Your task to perform on an android device: Search for "razer blade" on bestbuy.com, select the first entry, and add it to the cart. Image 0: 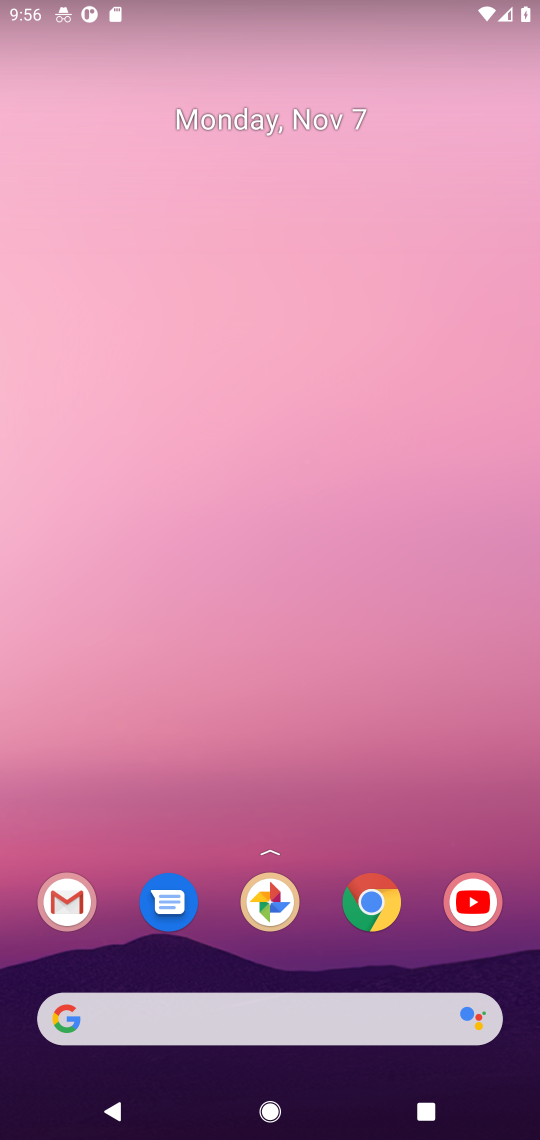
Step 0: click (385, 913)
Your task to perform on an android device: Search for "razer blade" on bestbuy.com, select the first entry, and add it to the cart. Image 1: 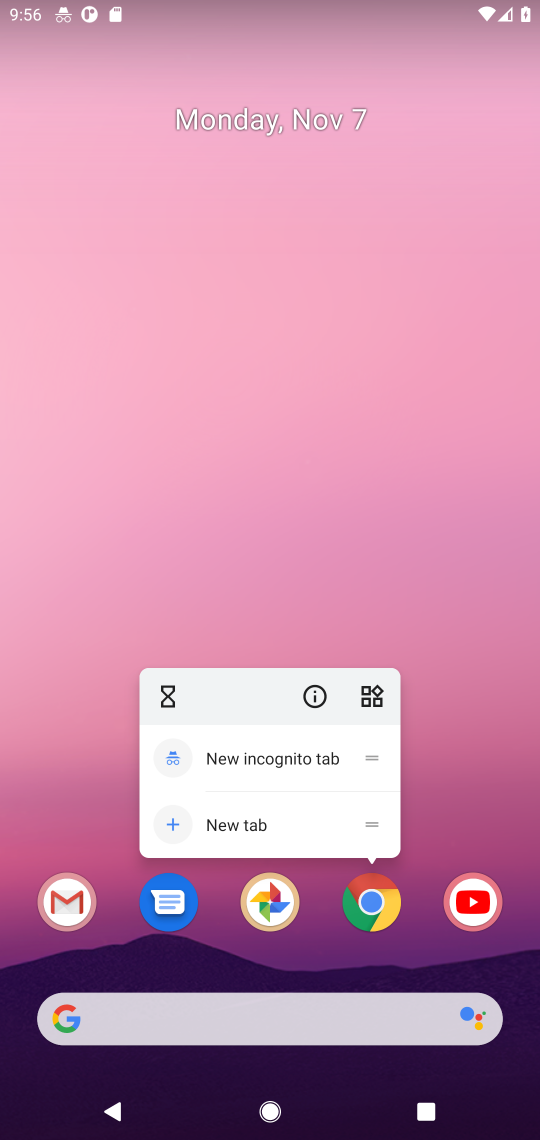
Step 1: click (385, 913)
Your task to perform on an android device: Search for "razer blade" on bestbuy.com, select the first entry, and add it to the cart. Image 2: 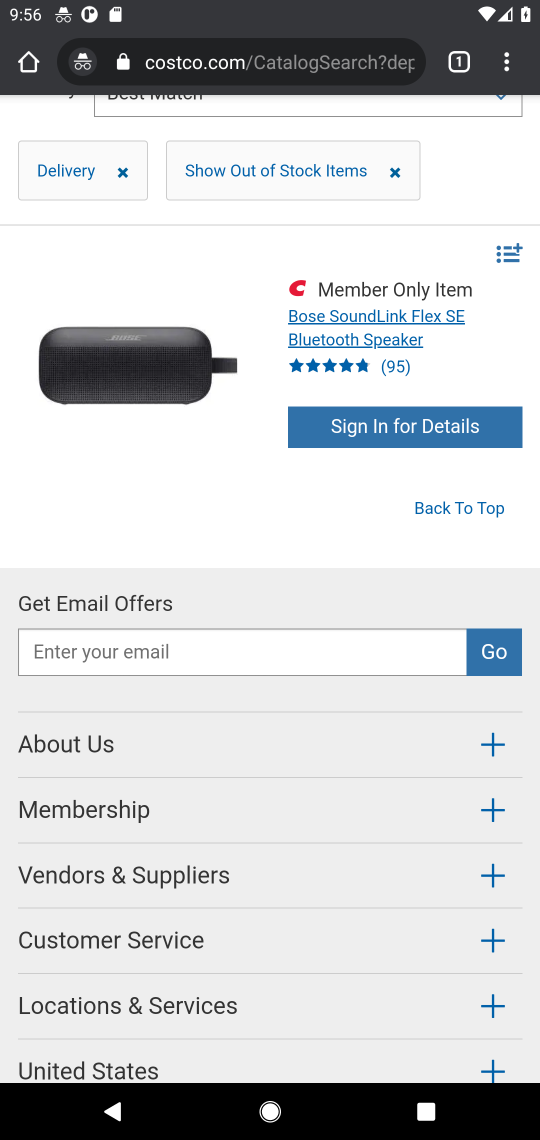
Step 2: click (235, 59)
Your task to perform on an android device: Search for "razer blade" on bestbuy.com, select the first entry, and add it to the cart. Image 3: 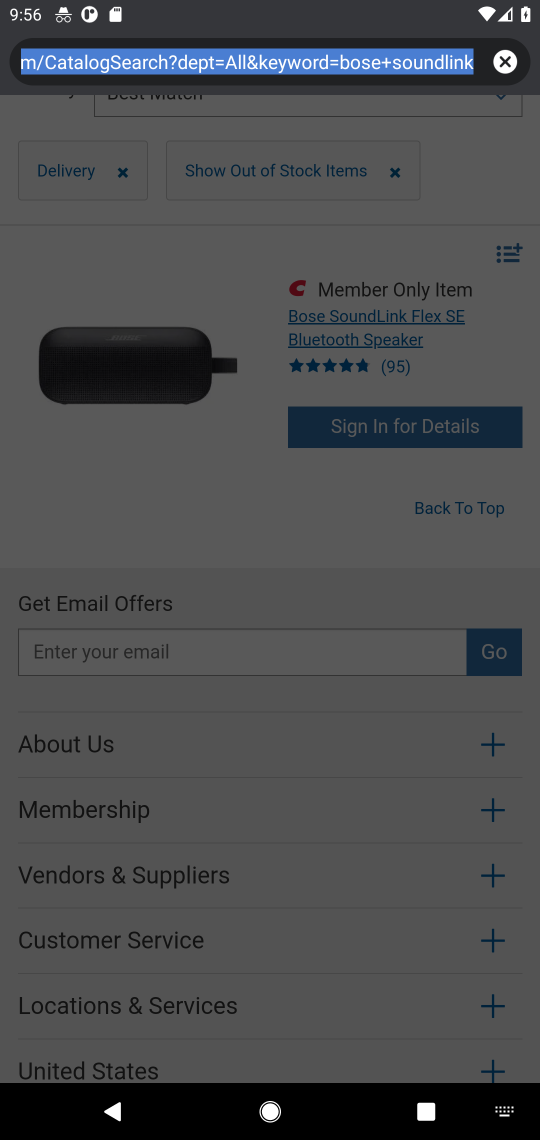
Step 3: type "bestbuy.com"
Your task to perform on an android device: Search for "razer blade" on bestbuy.com, select the first entry, and add it to the cart. Image 4: 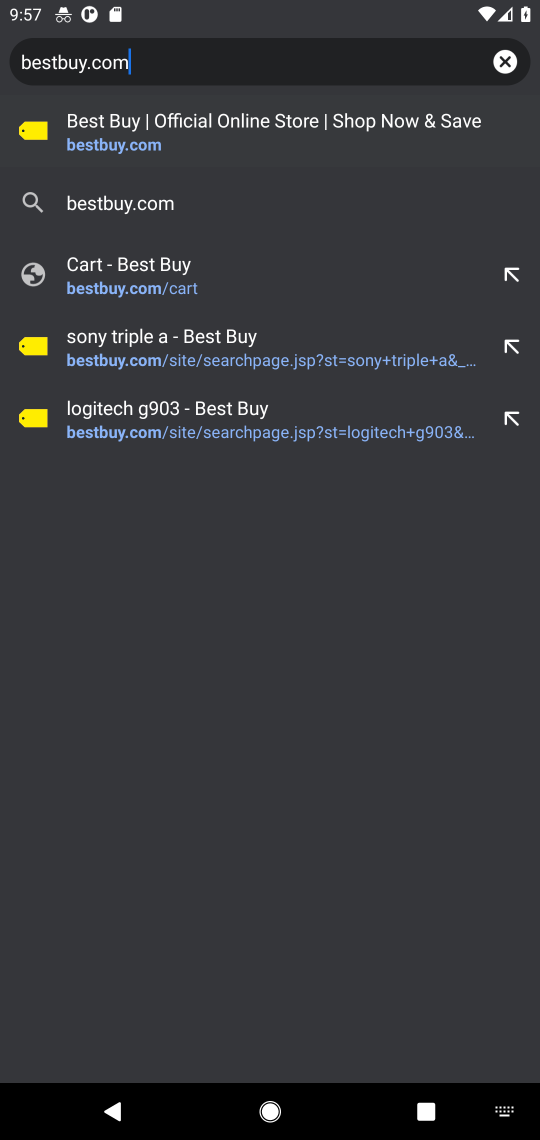
Step 4: click (162, 142)
Your task to perform on an android device: Search for "razer blade" on bestbuy.com, select the first entry, and add it to the cart. Image 5: 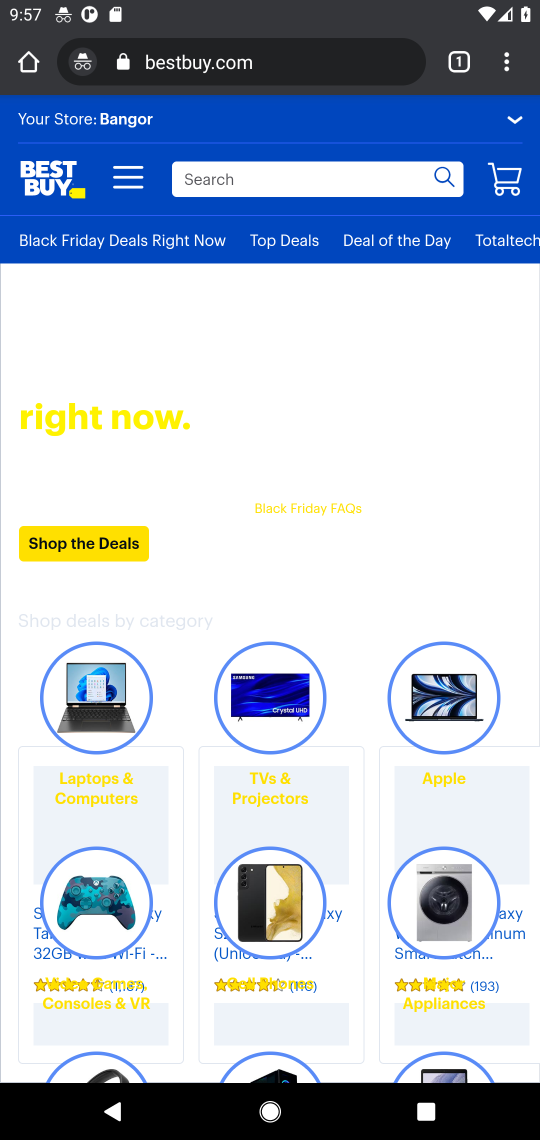
Step 5: click (245, 185)
Your task to perform on an android device: Search for "razer blade" on bestbuy.com, select the first entry, and add it to the cart. Image 6: 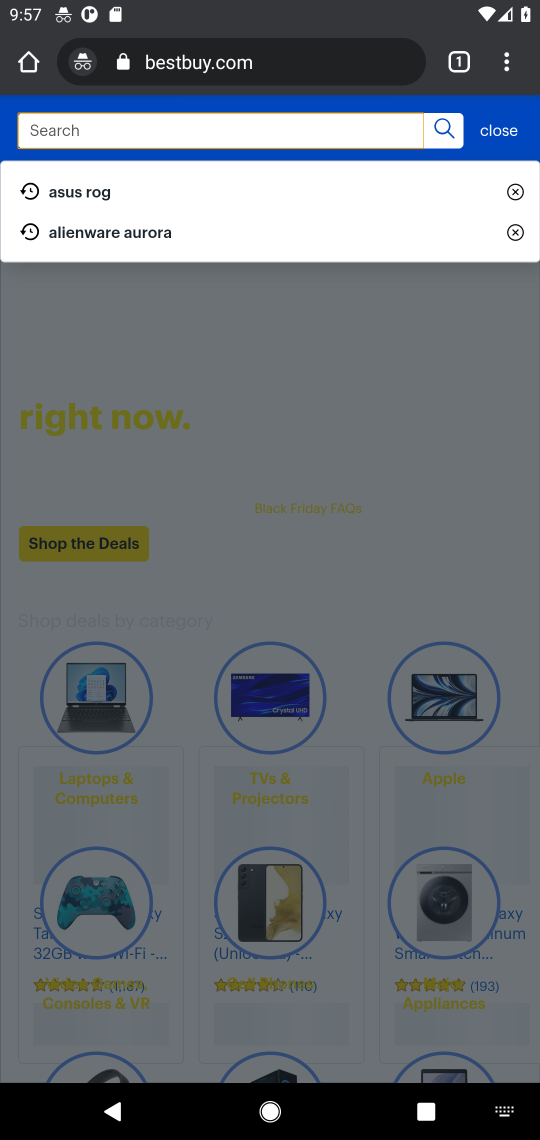
Step 6: type "razer blade"
Your task to perform on an android device: Search for "razer blade" on bestbuy.com, select the first entry, and add it to the cart. Image 7: 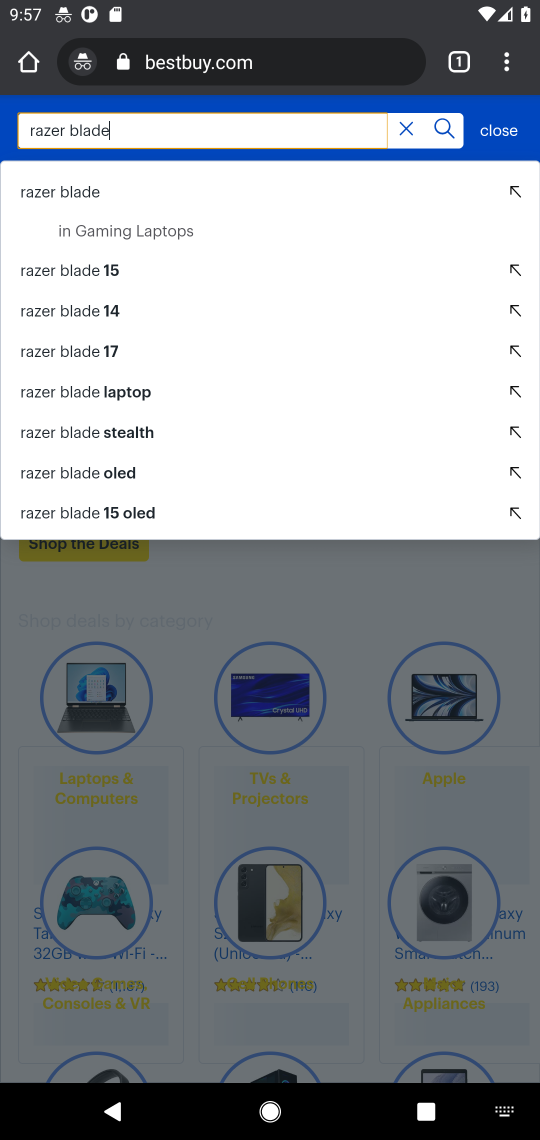
Step 7: click (65, 196)
Your task to perform on an android device: Search for "razer blade" on bestbuy.com, select the first entry, and add it to the cart. Image 8: 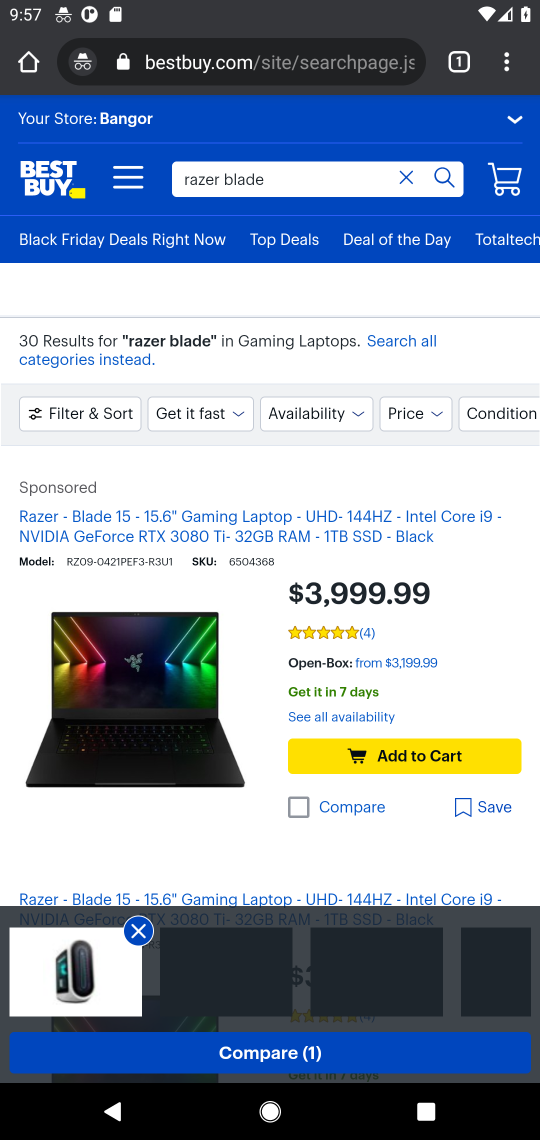
Step 8: click (392, 751)
Your task to perform on an android device: Search for "razer blade" on bestbuy.com, select the first entry, and add it to the cart. Image 9: 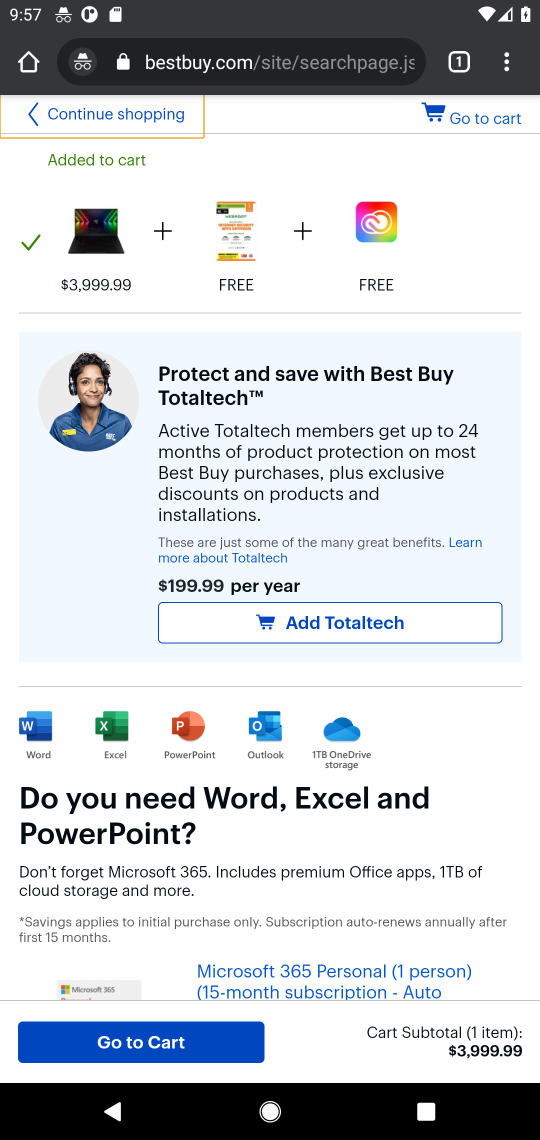
Step 9: task complete